Your task to perform on an android device: Open Youtube and go to the subscriptions tab Image 0: 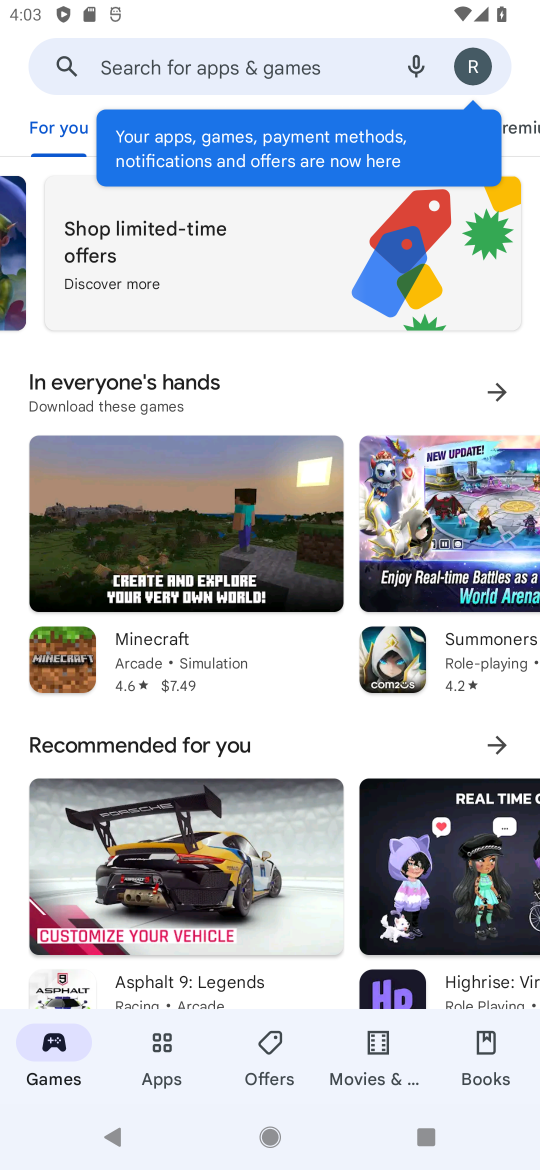
Step 0: press home button
Your task to perform on an android device: Open Youtube and go to the subscriptions tab Image 1: 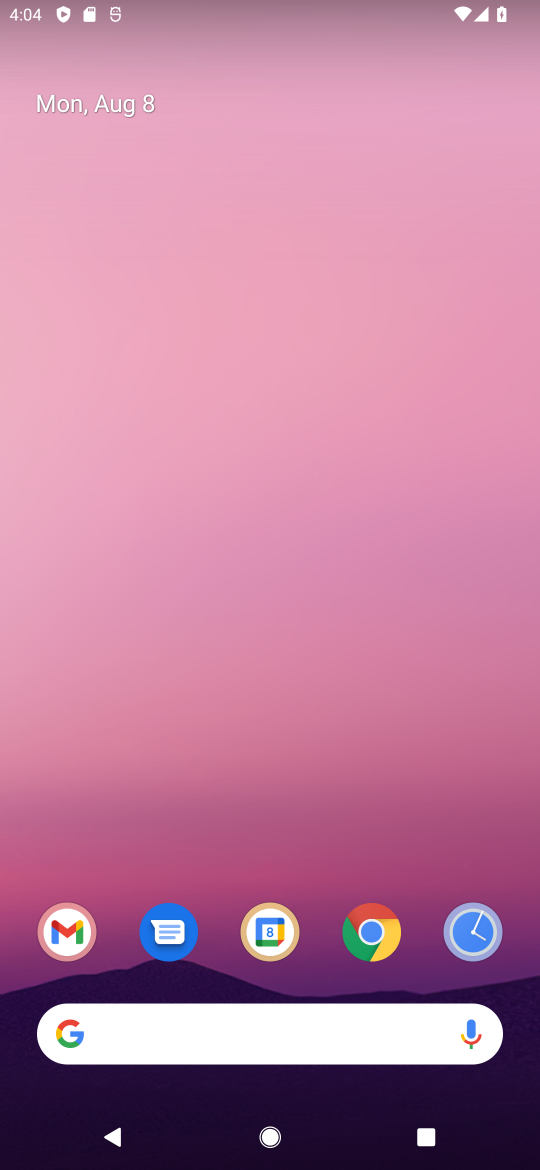
Step 1: drag from (214, 1078) to (295, 40)
Your task to perform on an android device: Open Youtube and go to the subscriptions tab Image 2: 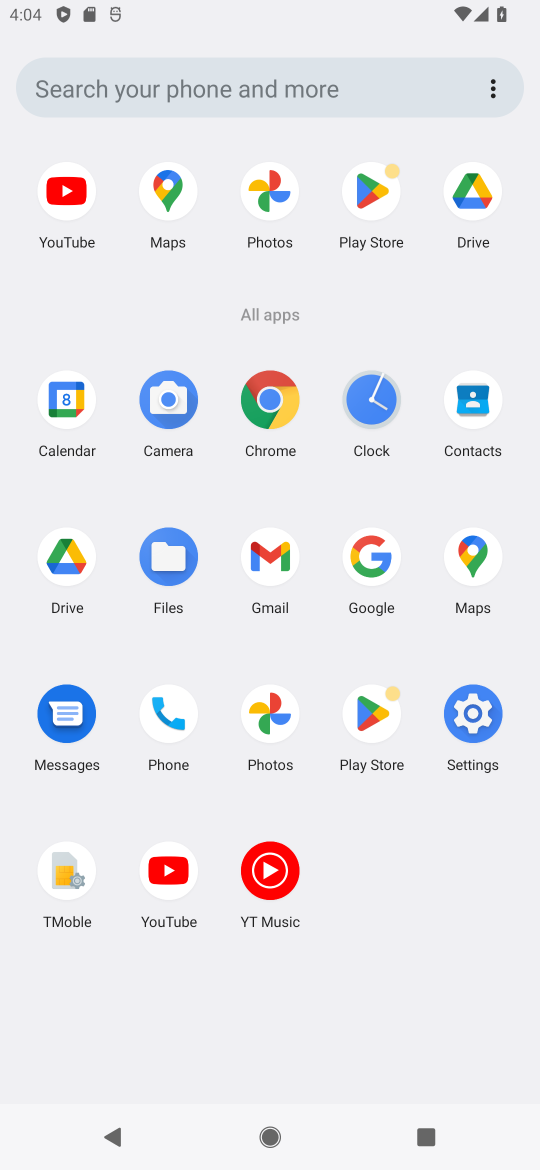
Step 2: click (154, 869)
Your task to perform on an android device: Open Youtube and go to the subscriptions tab Image 3: 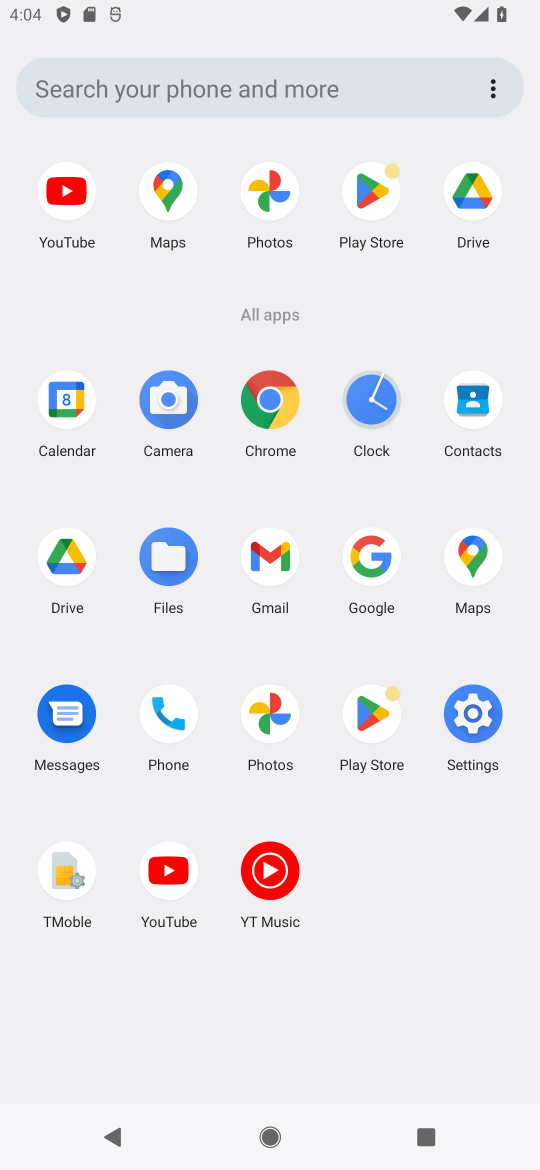
Step 3: click (154, 869)
Your task to perform on an android device: Open Youtube and go to the subscriptions tab Image 4: 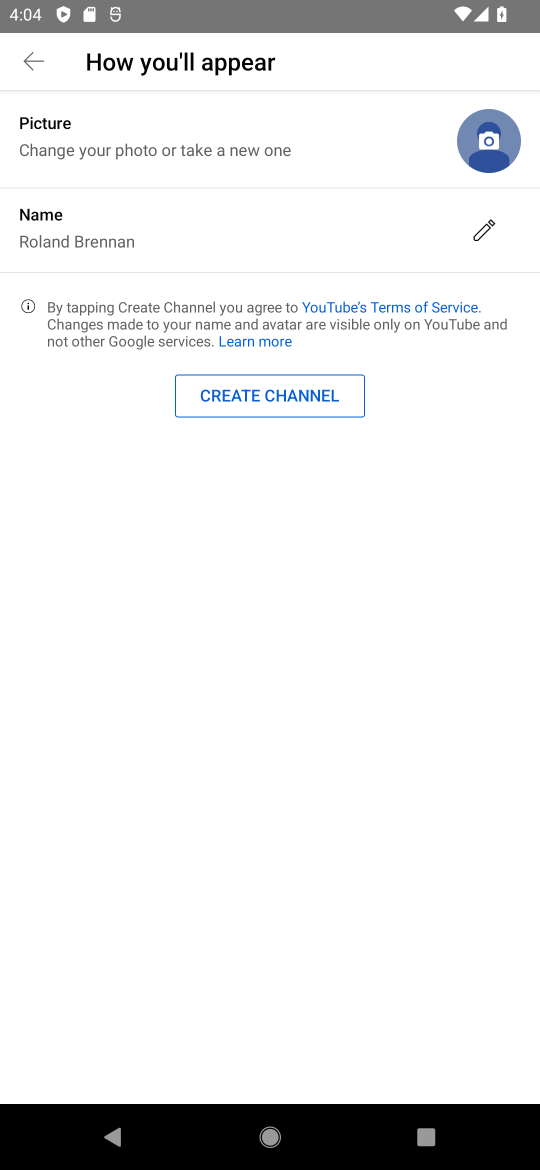
Step 4: click (26, 60)
Your task to perform on an android device: Open Youtube and go to the subscriptions tab Image 5: 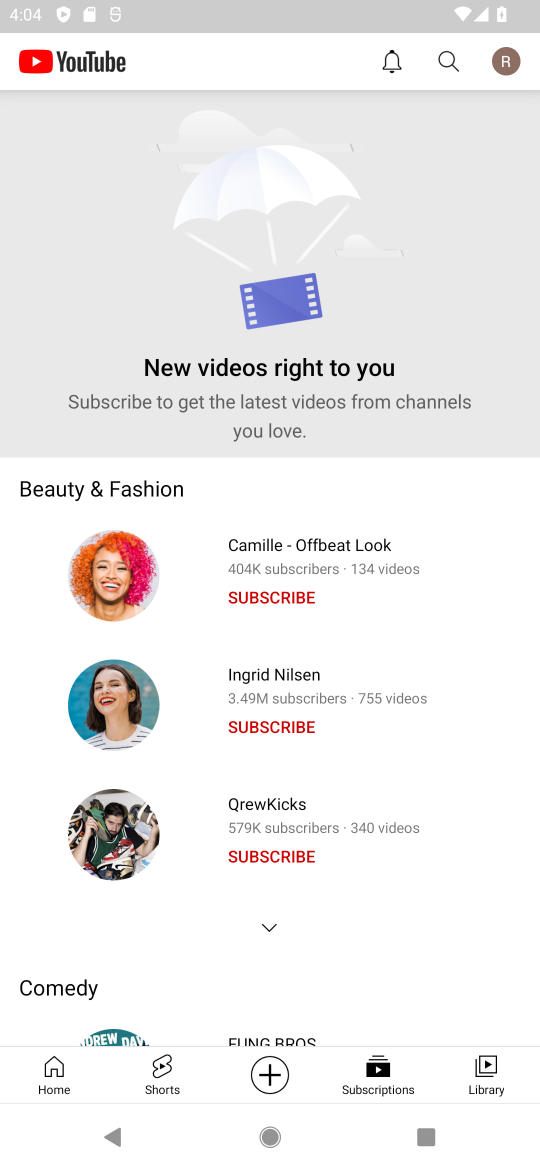
Step 5: click (385, 1075)
Your task to perform on an android device: Open Youtube and go to the subscriptions tab Image 6: 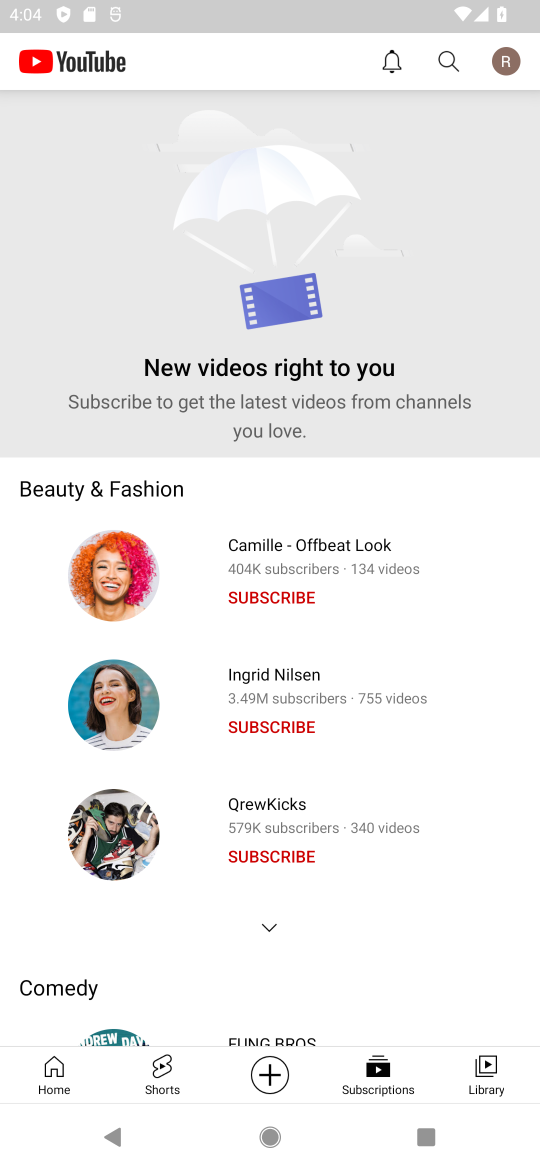
Step 6: task complete